Your task to perform on an android device: Open CNN.com Image 0: 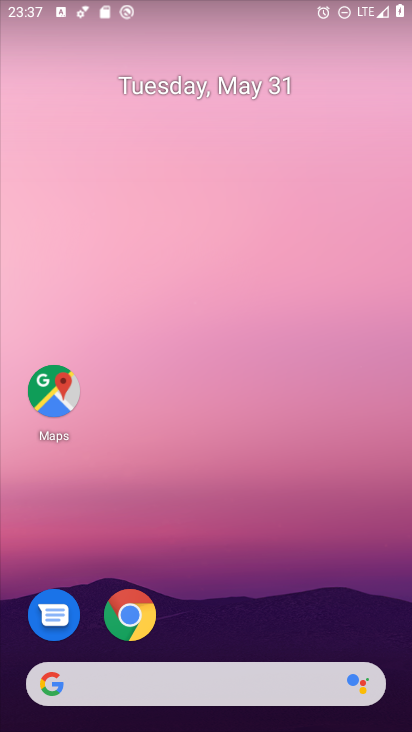
Step 0: click (130, 615)
Your task to perform on an android device: Open CNN.com Image 1: 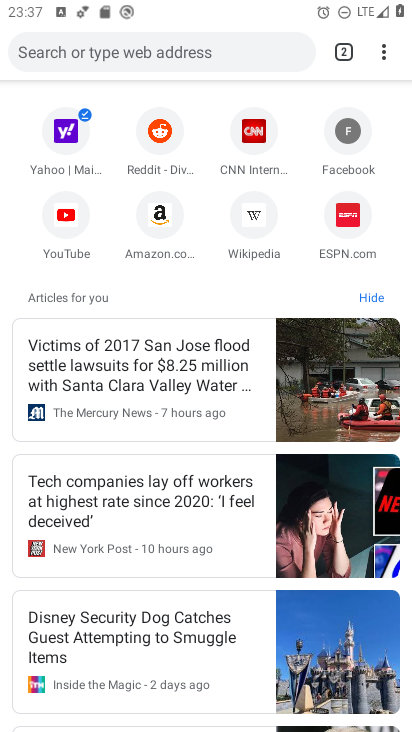
Step 1: click (145, 47)
Your task to perform on an android device: Open CNN.com Image 2: 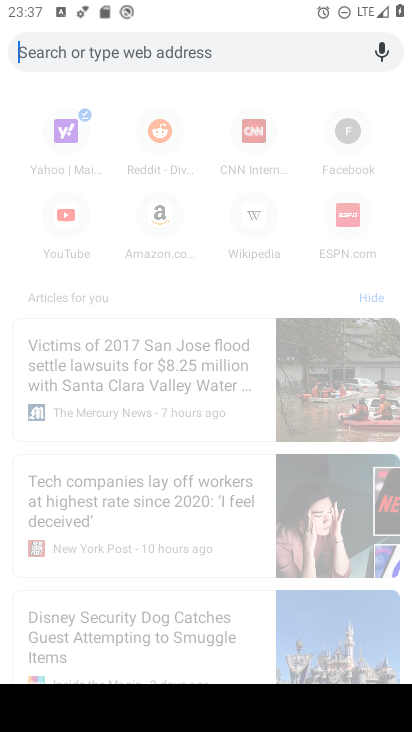
Step 2: type "cnn.com"
Your task to perform on an android device: Open CNN.com Image 3: 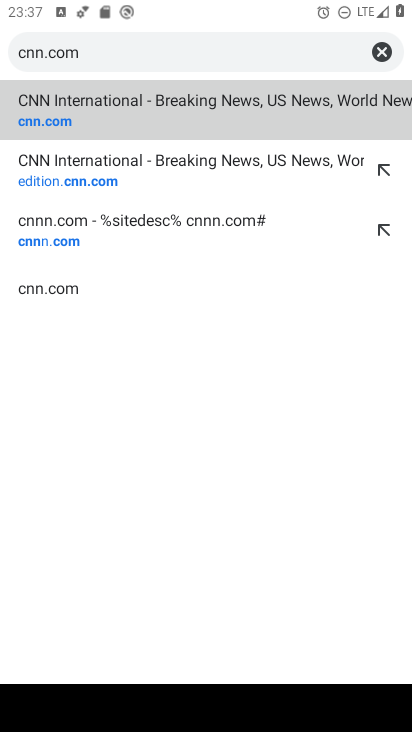
Step 3: click (57, 104)
Your task to perform on an android device: Open CNN.com Image 4: 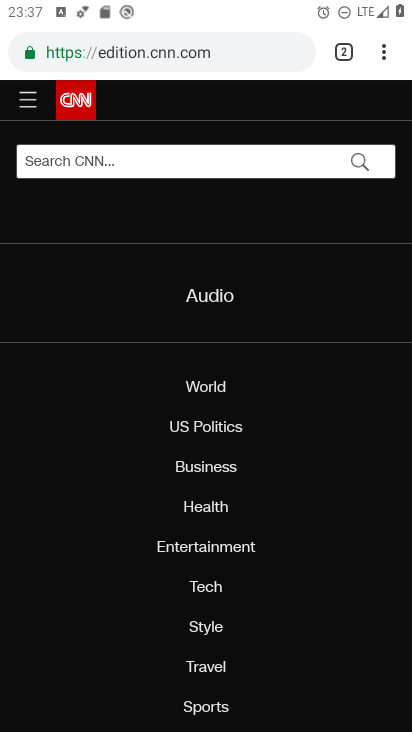
Step 4: task complete